Your task to perform on an android device: Go to accessibility settings Image 0: 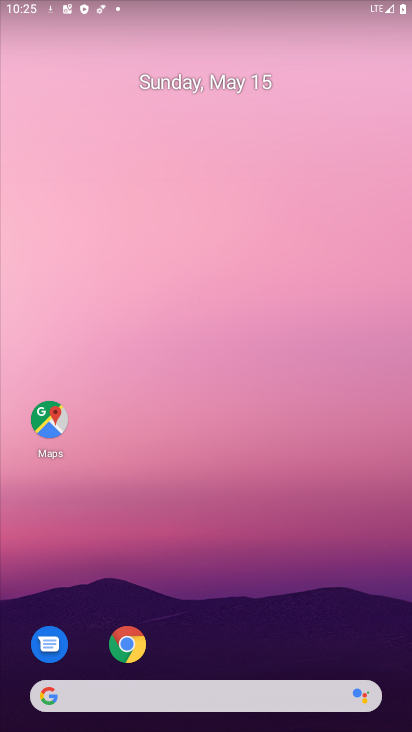
Step 0: drag from (274, 700) to (308, 323)
Your task to perform on an android device: Go to accessibility settings Image 1: 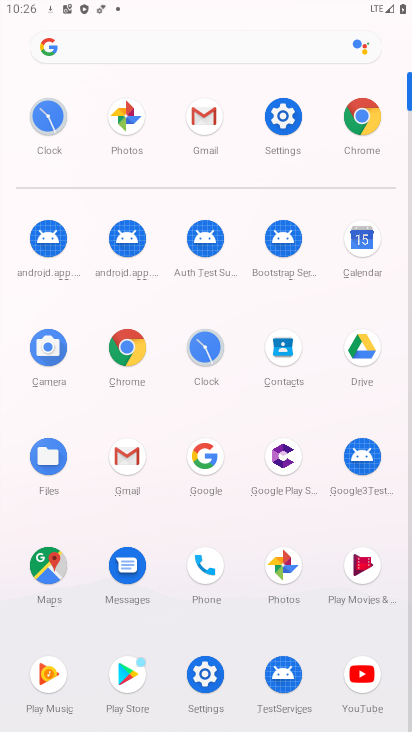
Step 1: click (271, 120)
Your task to perform on an android device: Go to accessibility settings Image 2: 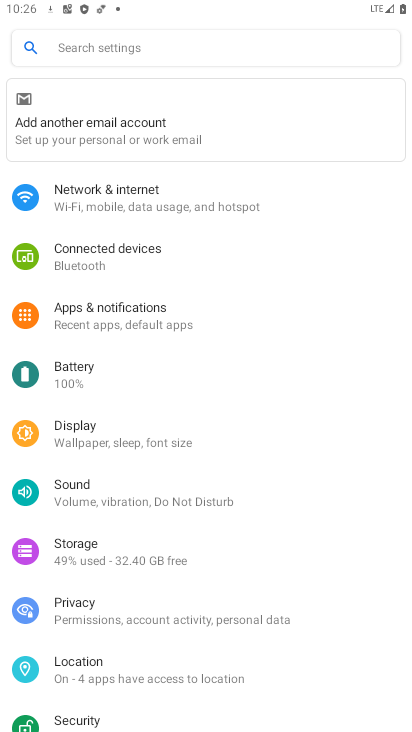
Step 2: click (167, 51)
Your task to perform on an android device: Go to accessibility settings Image 3: 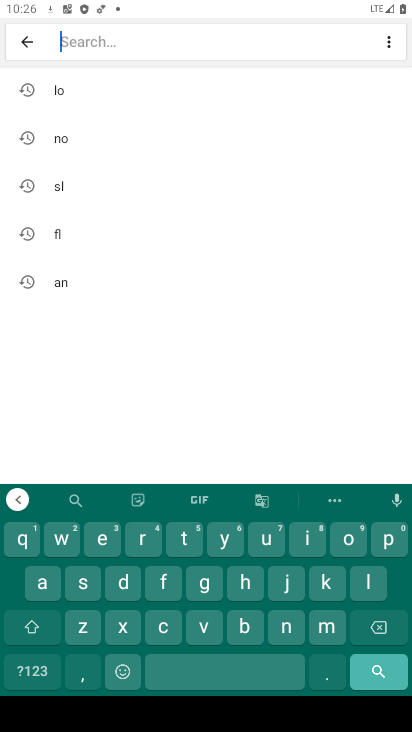
Step 3: click (46, 592)
Your task to perform on an android device: Go to accessibility settings Image 4: 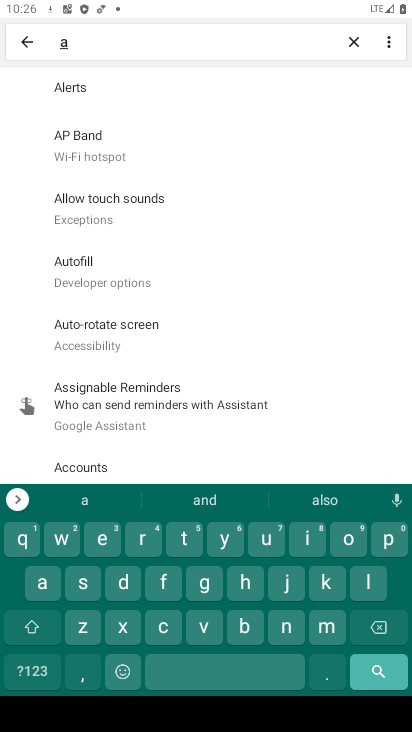
Step 4: click (170, 625)
Your task to perform on an android device: Go to accessibility settings Image 5: 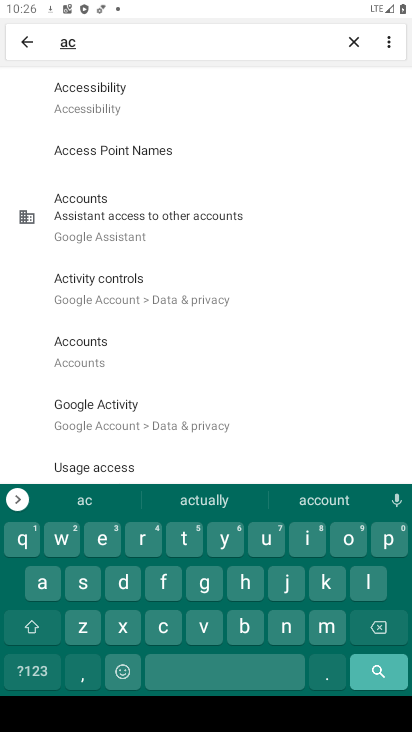
Step 5: click (184, 106)
Your task to perform on an android device: Go to accessibility settings Image 6: 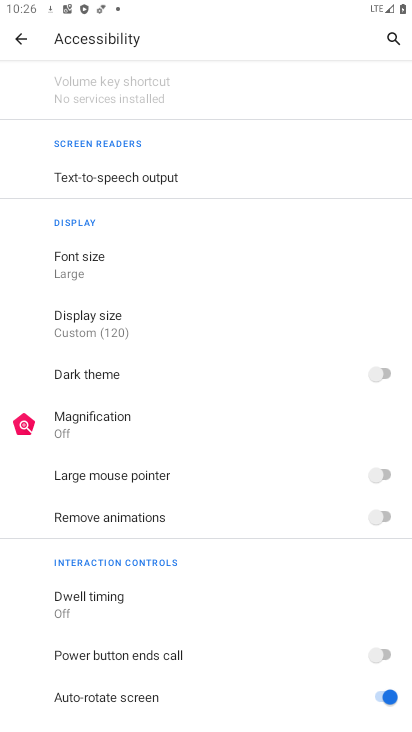
Step 6: task complete